Your task to perform on an android device: Open settings on Google Maps Image 0: 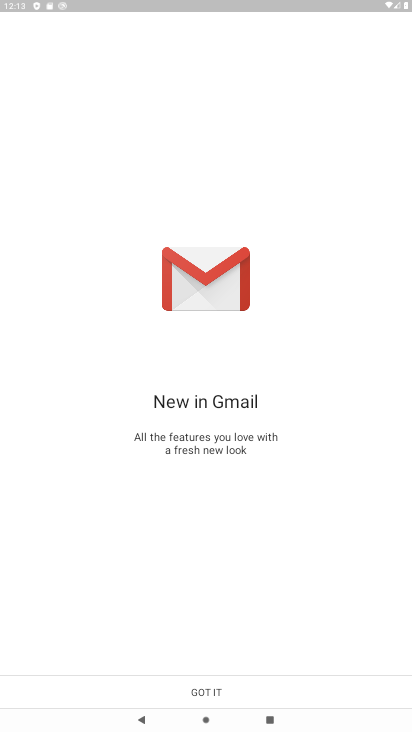
Step 0: press home button
Your task to perform on an android device: Open settings on Google Maps Image 1: 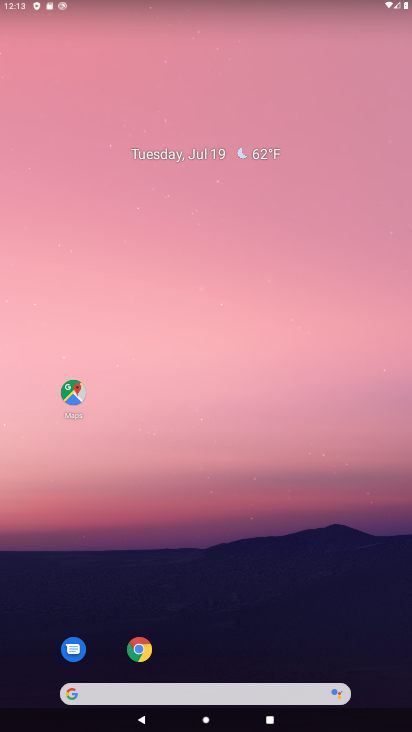
Step 1: click (74, 390)
Your task to perform on an android device: Open settings on Google Maps Image 2: 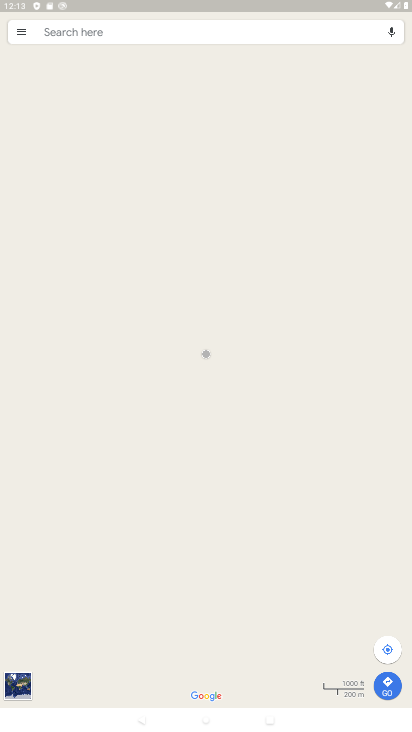
Step 2: click (21, 31)
Your task to perform on an android device: Open settings on Google Maps Image 3: 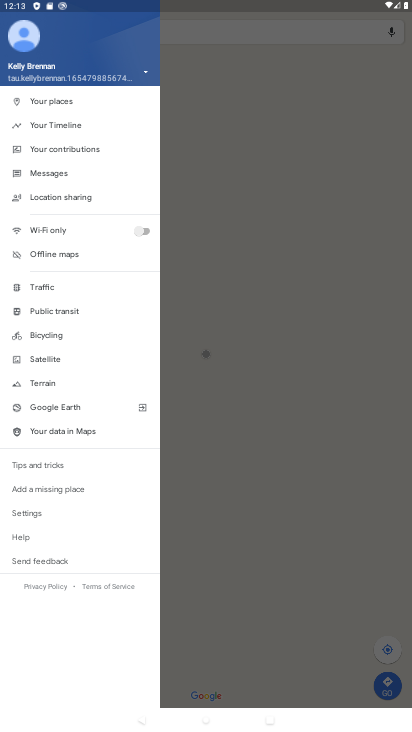
Step 3: click (20, 513)
Your task to perform on an android device: Open settings on Google Maps Image 4: 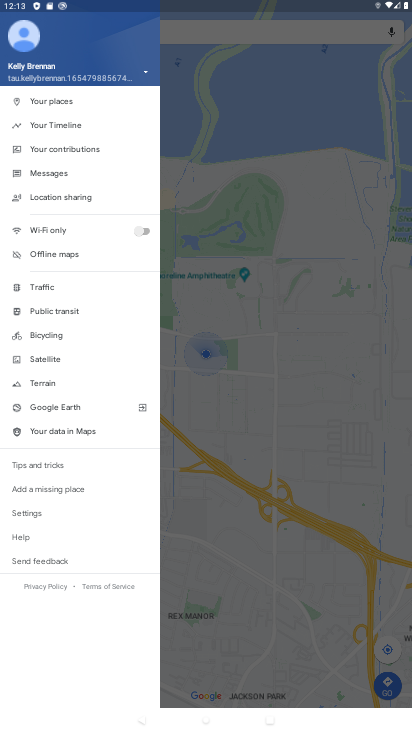
Step 4: click (51, 516)
Your task to perform on an android device: Open settings on Google Maps Image 5: 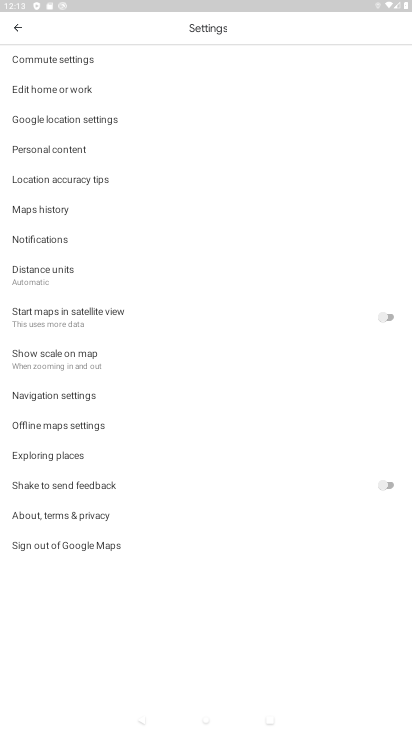
Step 5: task complete